Your task to perform on an android device: Open the Play Movies app and select the watchlist tab. Image 0: 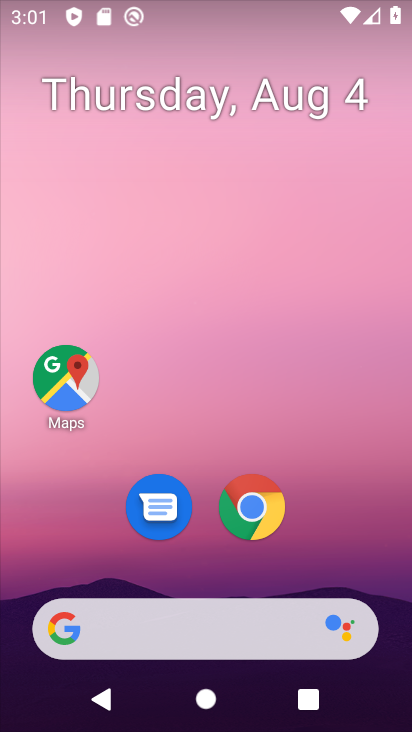
Step 0: drag from (59, 665) to (301, 83)
Your task to perform on an android device: Open the Play Movies app and select the watchlist tab. Image 1: 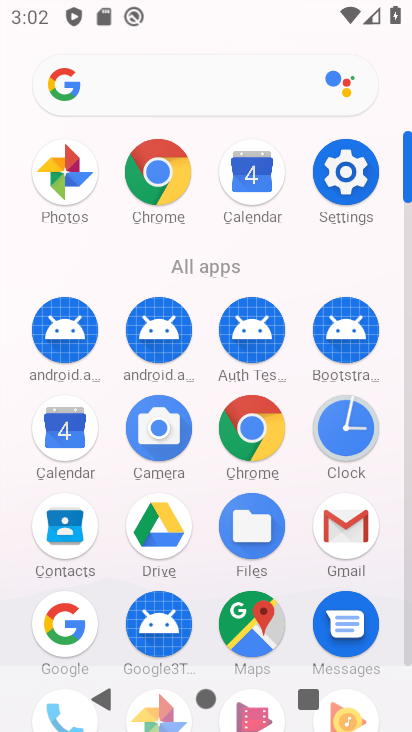
Step 1: click (338, 265)
Your task to perform on an android device: Open the Play Movies app and select the watchlist tab. Image 2: 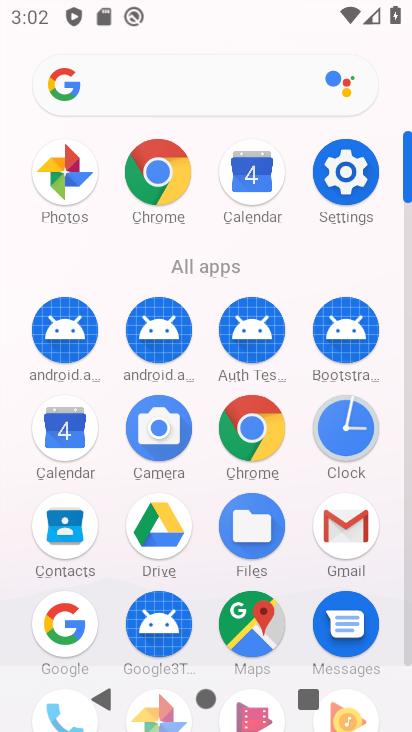
Step 2: drag from (215, 671) to (303, 105)
Your task to perform on an android device: Open the Play Movies app and select the watchlist tab. Image 3: 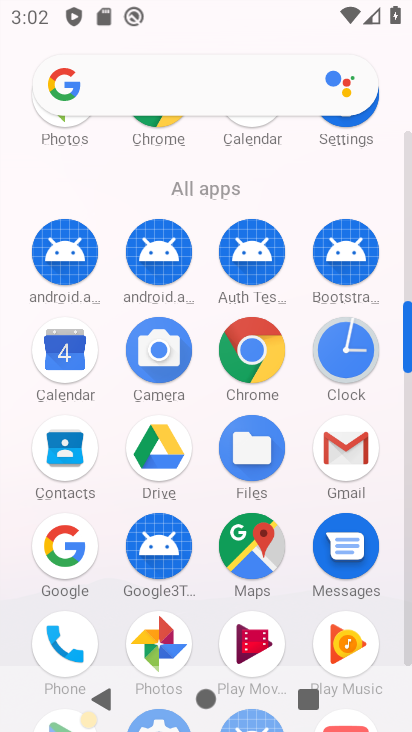
Step 3: click (246, 655)
Your task to perform on an android device: Open the Play Movies app and select the watchlist tab. Image 4: 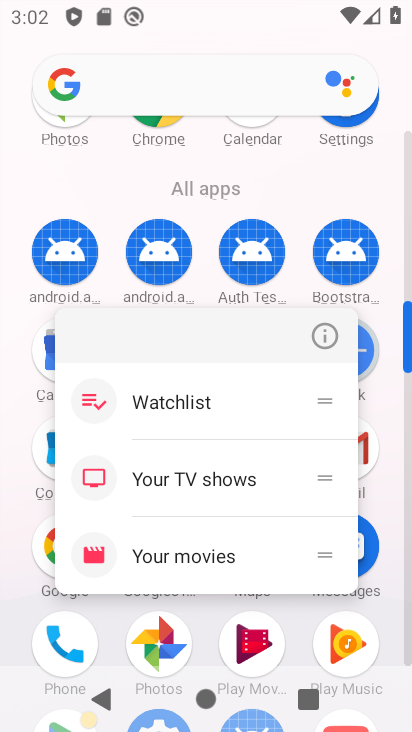
Step 4: click (255, 647)
Your task to perform on an android device: Open the Play Movies app and select the watchlist tab. Image 5: 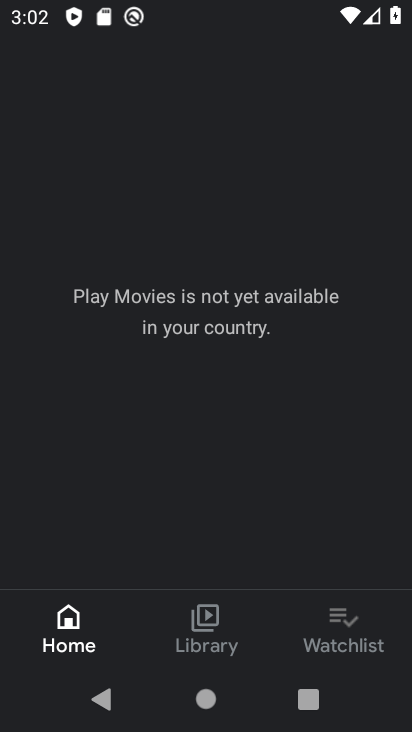
Step 5: click (325, 635)
Your task to perform on an android device: Open the Play Movies app and select the watchlist tab. Image 6: 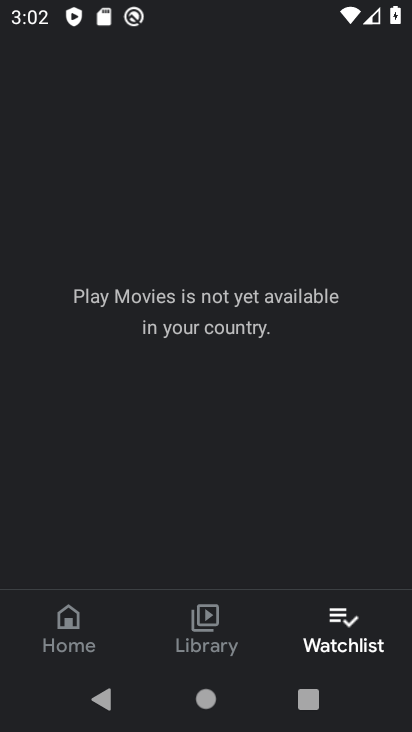
Step 6: task complete